Your task to perform on an android device: clear history in the chrome app Image 0: 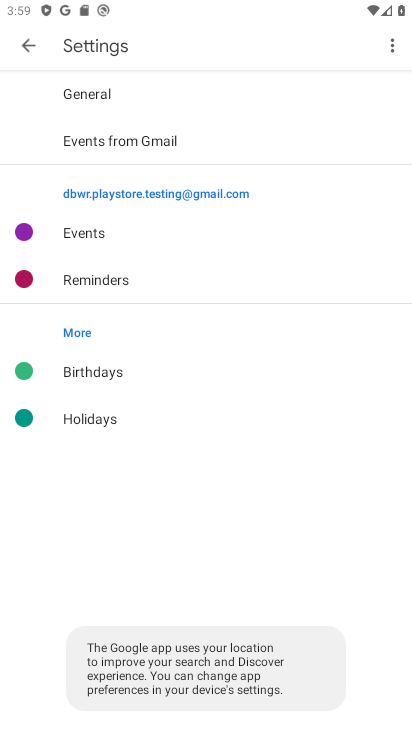
Step 0: press back button
Your task to perform on an android device: clear history in the chrome app Image 1: 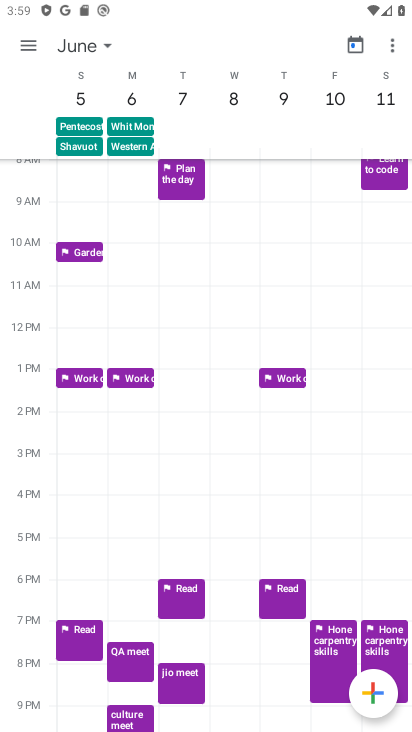
Step 1: press home button
Your task to perform on an android device: clear history in the chrome app Image 2: 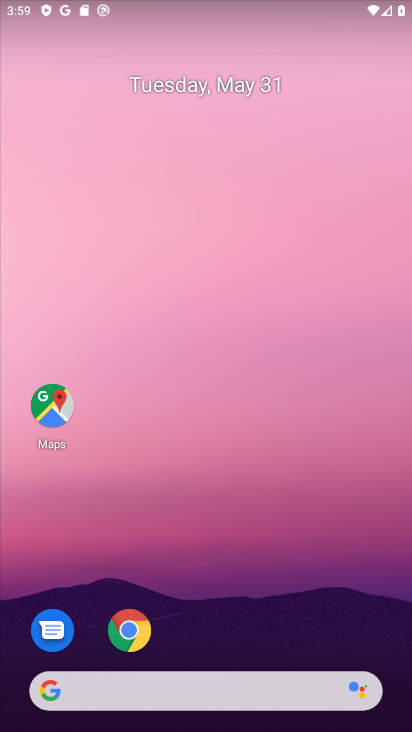
Step 2: drag from (292, 566) to (163, 6)
Your task to perform on an android device: clear history in the chrome app Image 3: 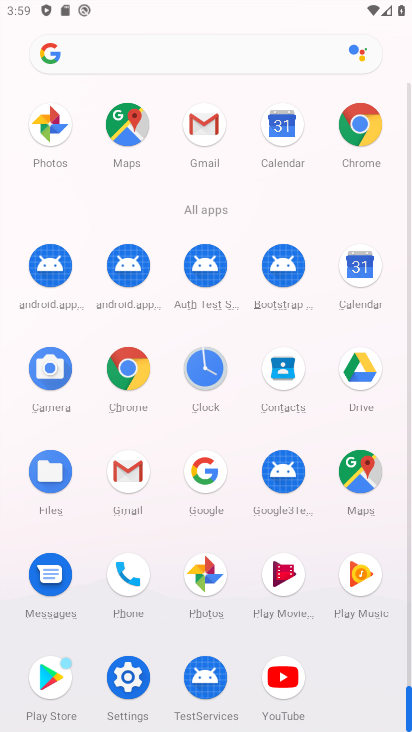
Step 3: drag from (20, 553) to (12, 198)
Your task to perform on an android device: clear history in the chrome app Image 4: 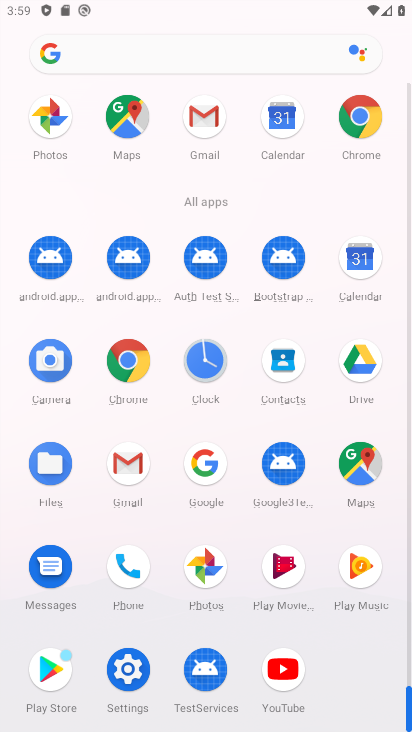
Step 4: click (129, 362)
Your task to perform on an android device: clear history in the chrome app Image 5: 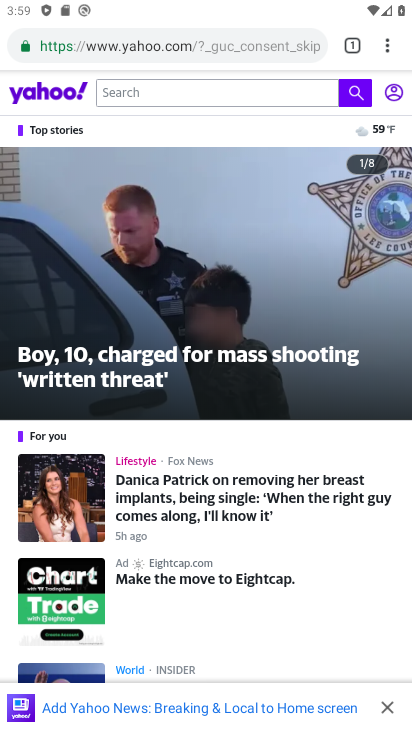
Step 5: drag from (378, 38) to (247, 244)
Your task to perform on an android device: clear history in the chrome app Image 6: 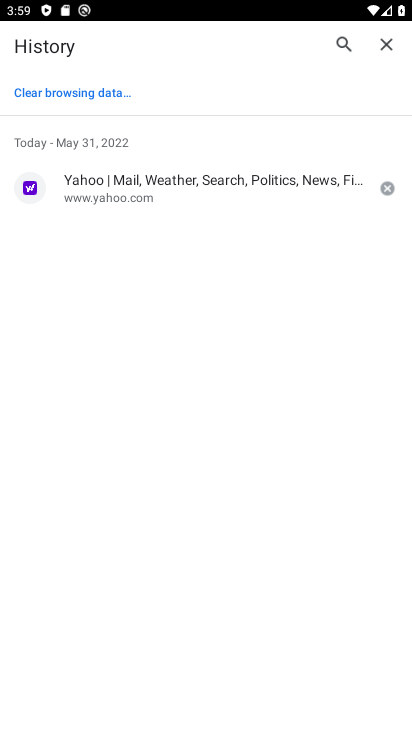
Step 6: click (91, 96)
Your task to perform on an android device: clear history in the chrome app Image 7: 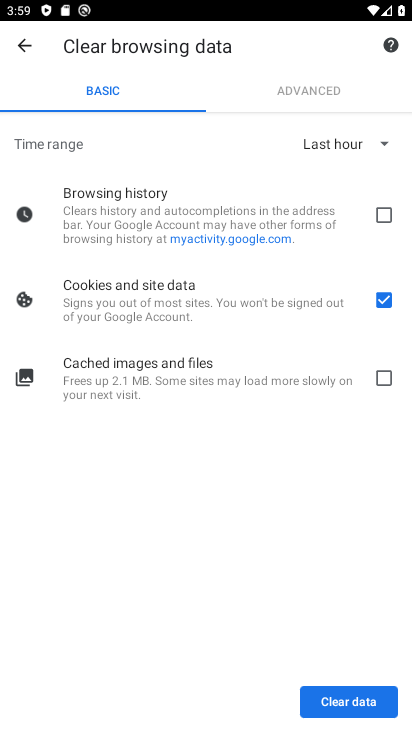
Step 7: click (371, 205)
Your task to perform on an android device: clear history in the chrome app Image 8: 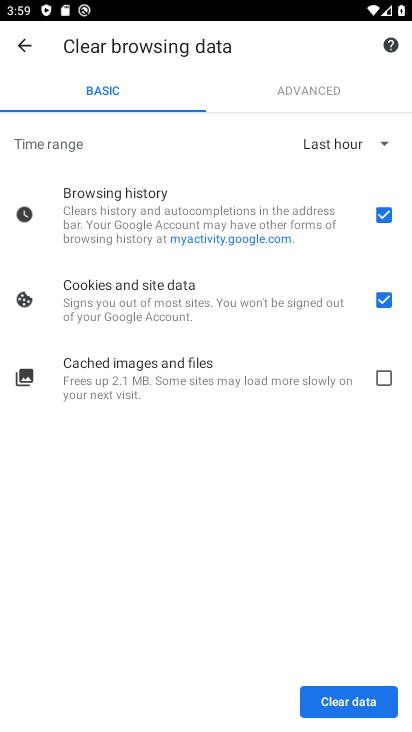
Step 8: click (380, 374)
Your task to perform on an android device: clear history in the chrome app Image 9: 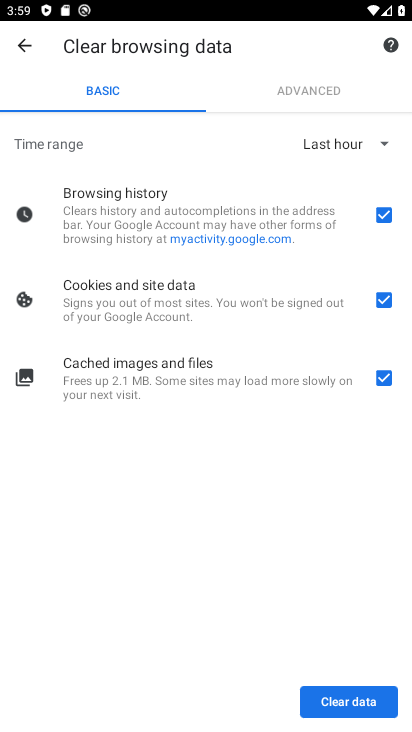
Step 9: click (354, 708)
Your task to perform on an android device: clear history in the chrome app Image 10: 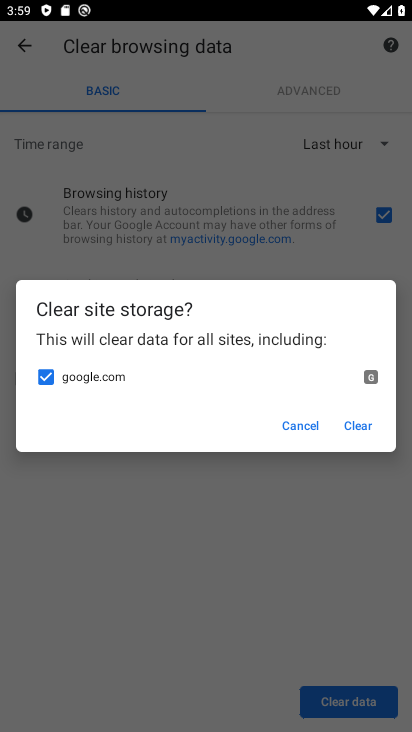
Step 10: click (360, 418)
Your task to perform on an android device: clear history in the chrome app Image 11: 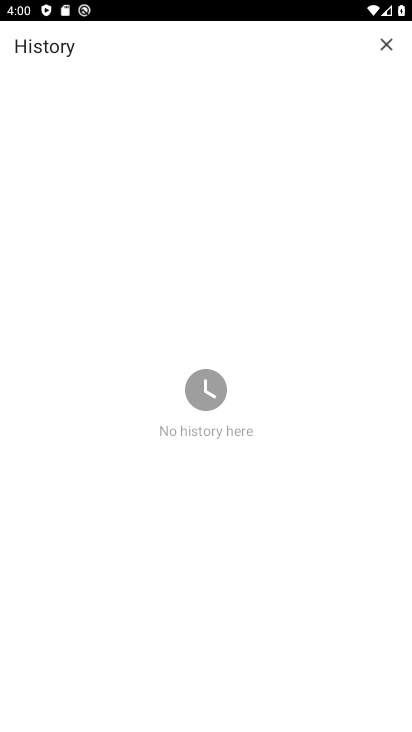
Step 11: task complete